Your task to perform on an android device: change the upload size in google photos Image 0: 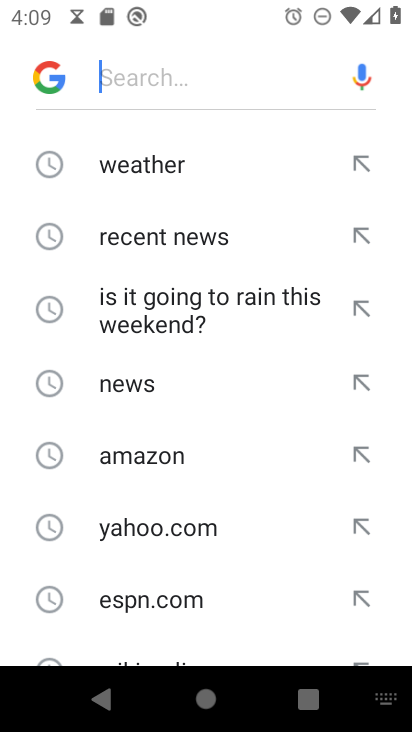
Step 0: press home button
Your task to perform on an android device: change the upload size in google photos Image 1: 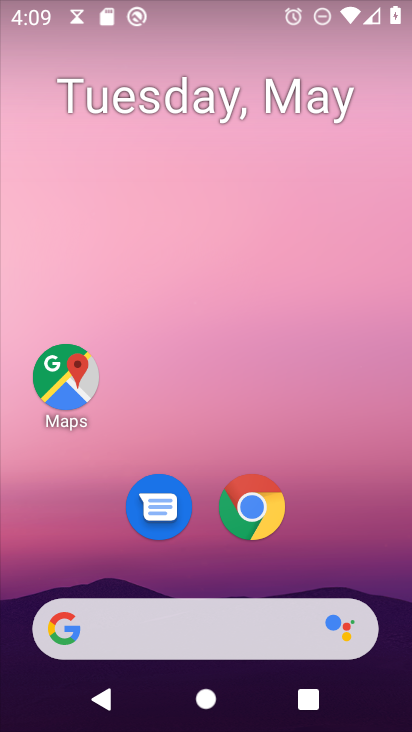
Step 1: drag from (200, 568) to (209, 84)
Your task to perform on an android device: change the upload size in google photos Image 2: 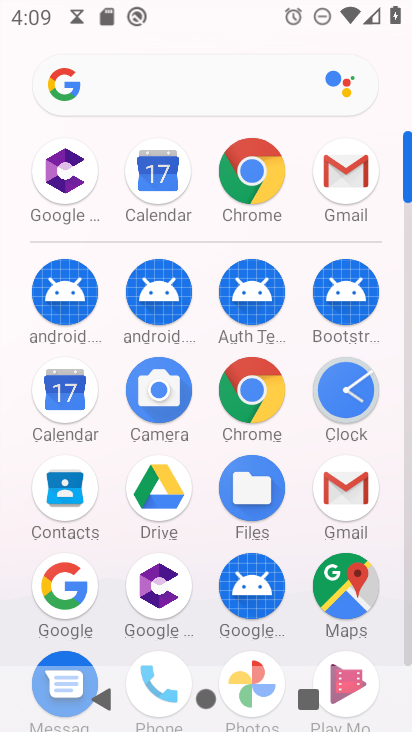
Step 2: drag from (290, 557) to (292, 259)
Your task to perform on an android device: change the upload size in google photos Image 3: 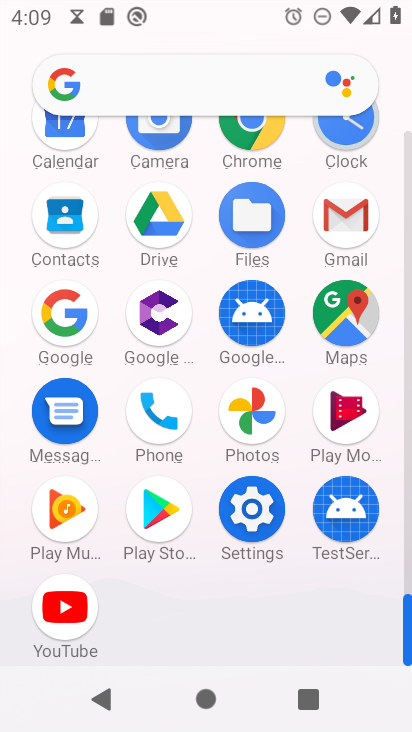
Step 3: click (238, 412)
Your task to perform on an android device: change the upload size in google photos Image 4: 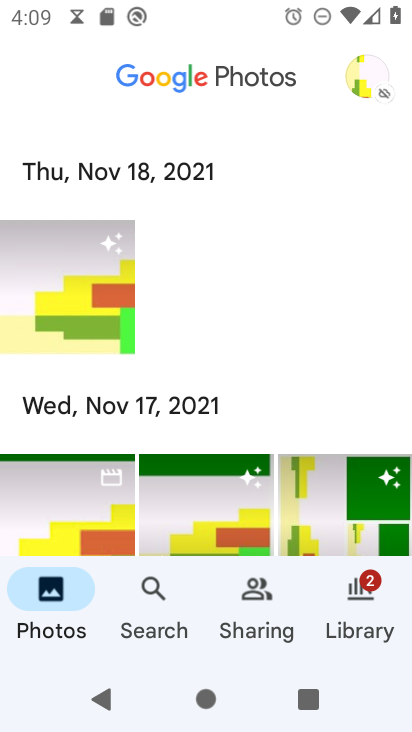
Step 4: click (358, 81)
Your task to perform on an android device: change the upload size in google photos Image 5: 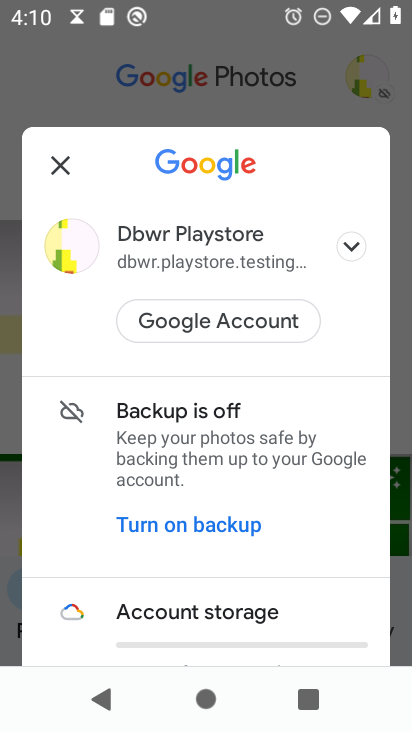
Step 5: drag from (313, 473) to (283, 127)
Your task to perform on an android device: change the upload size in google photos Image 6: 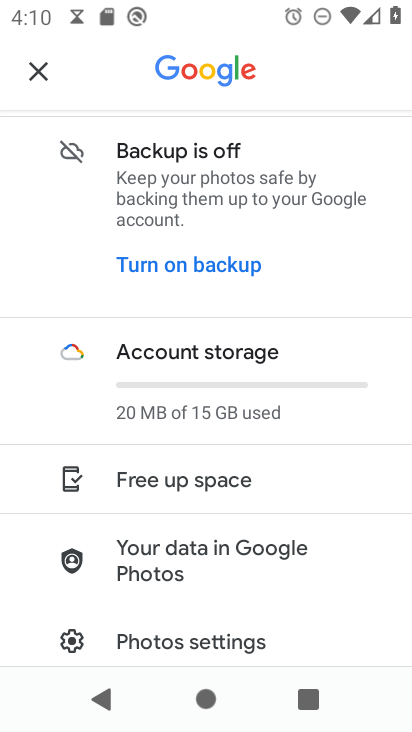
Step 6: click (259, 629)
Your task to perform on an android device: change the upload size in google photos Image 7: 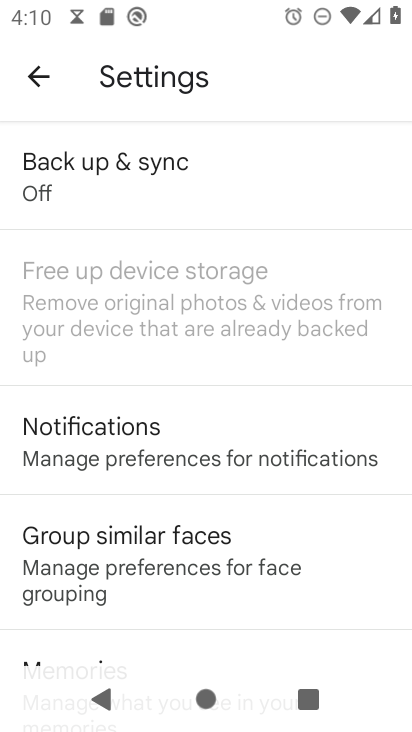
Step 7: click (145, 172)
Your task to perform on an android device: change the upload size in google photos Image 8: 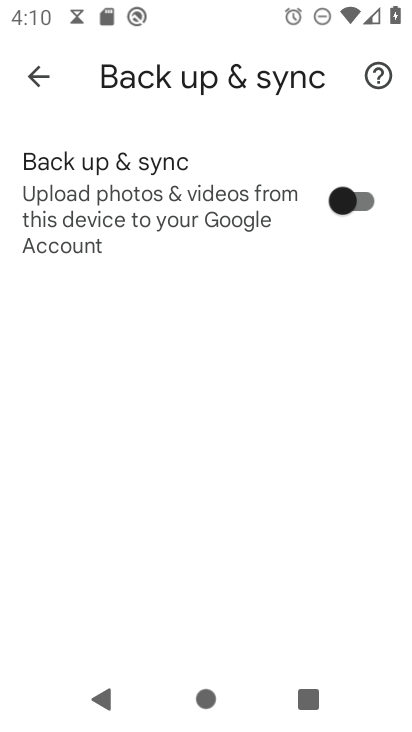
Step 8: click (98, 220)
Your task to perform on an android device: change the upload size in google photos Image 9: 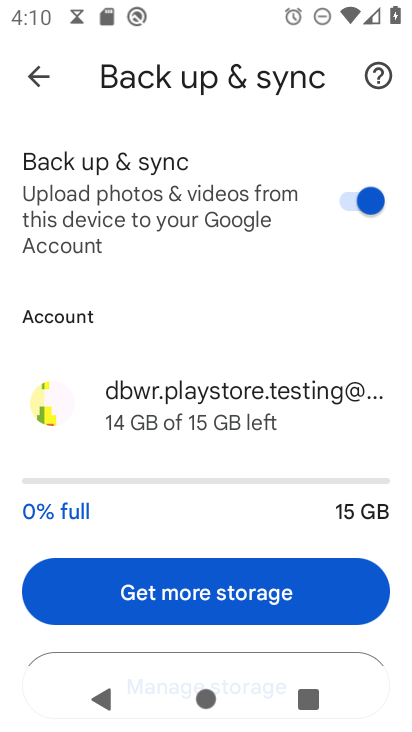
Step 9: drag from (193, 485) to (195, 59)
Your task to perform on an android device: change the upload size in google photos Image 10: 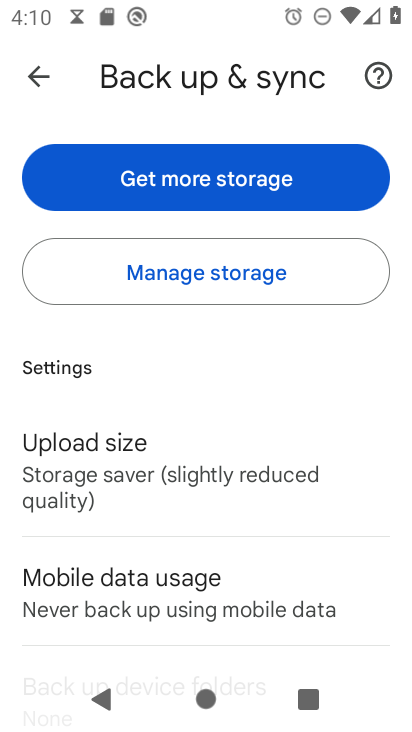
Step 10: drag from (204, 484) to (204, 249)
Your task to perform on an android device: change the upload size in google photos Image 11: 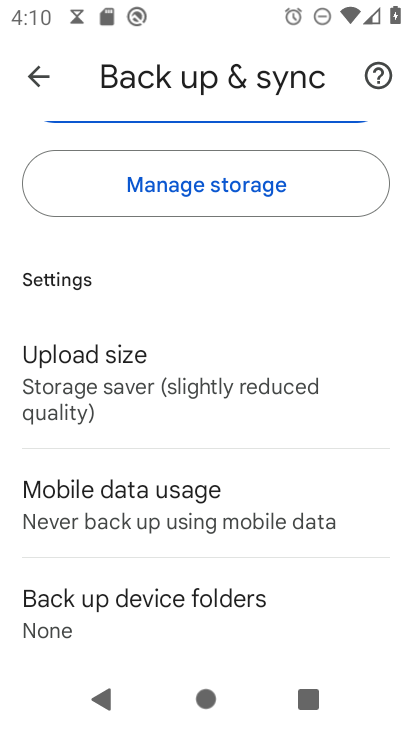
Step 11: click (137, 353)
Your task to perform on an android device: change the upload size in google photos Image 12: 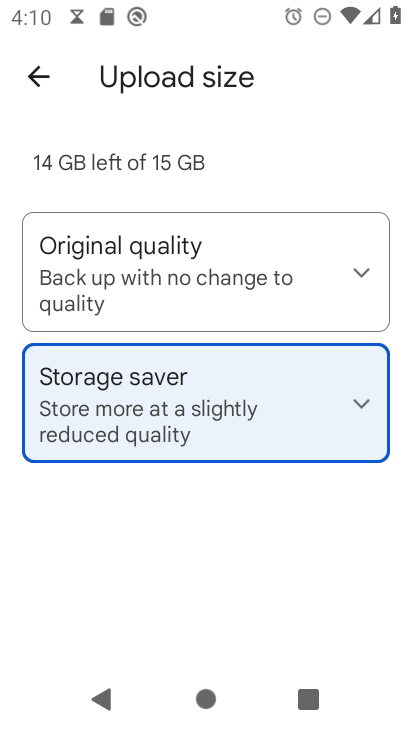
Step 12: click (145, 292)
Your task to perform on an android device: change the upload size in google photos Image 13: 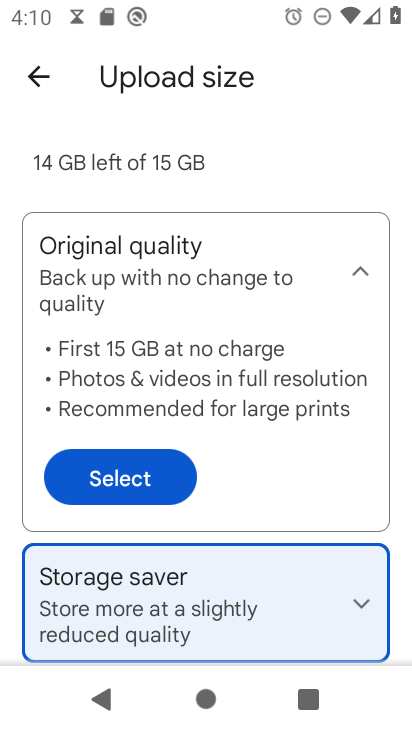
Step 13: click (133, 488)
Your task to perform on an android device: change the upload size in google photos Image 14: 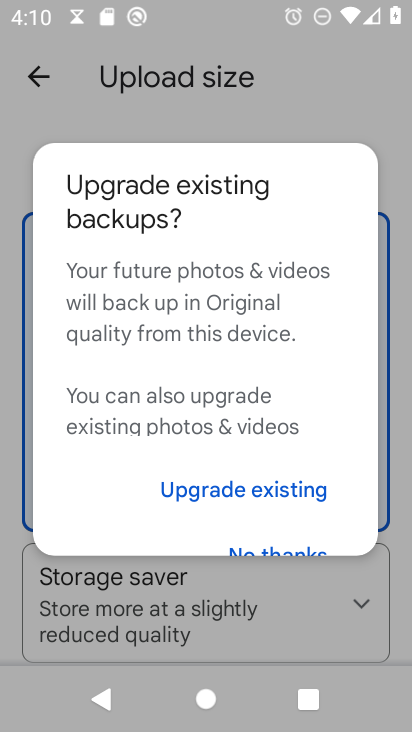
Step 14: click (267, 550)
Your task to perform on an android device: change the upload size in google photos Image 15: 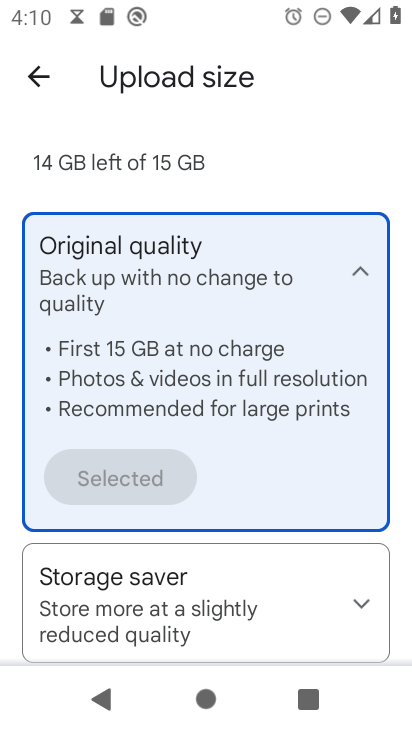
Step 15: task complete